Your task to perform on an android device: Open calendar and show me the second week of next month Image 0: 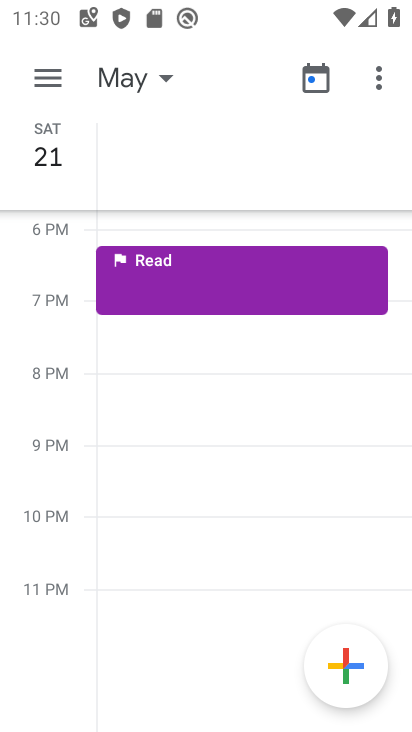
Step 0: click (150, 68)
Your task to perform on an android device: Open calendar and show me the second week of next month Image 1: 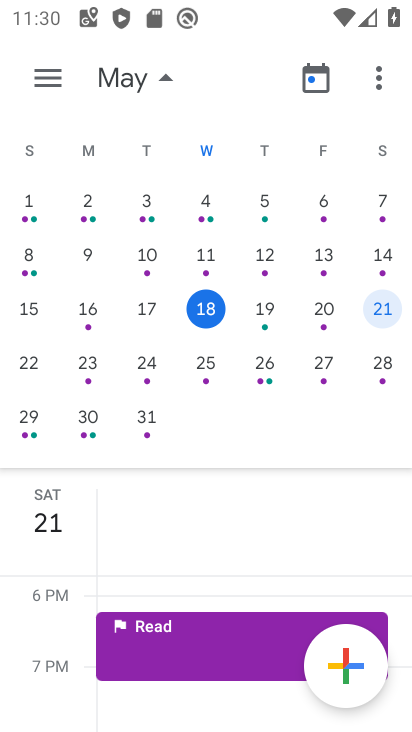
Step 1: drag from (390, 343) to (95, 336)
Your task to perform on an android device: Open calendar and show me the second week of next month Image 2: 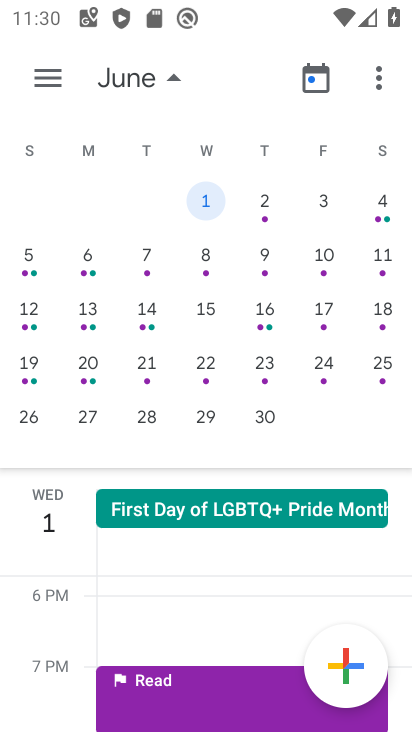
Step 2: click (54, 77)
Your task to perform on an android device: Open calendar and show me the second week of next month Image 3: 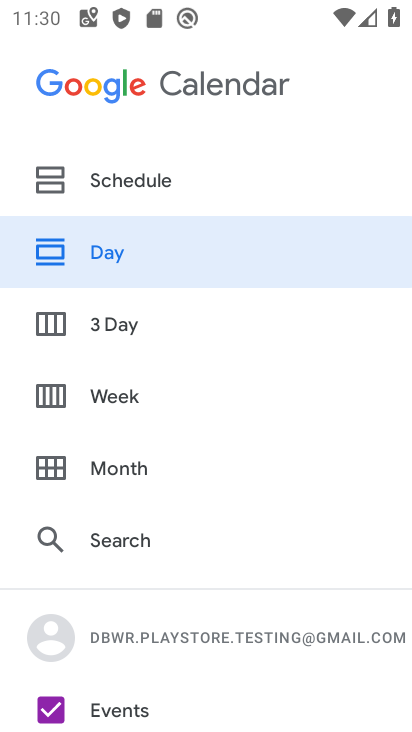
Step 3: click (148, 396)
Your task to perform on an android device: Open calendar and show me the second week of next month Image 4: 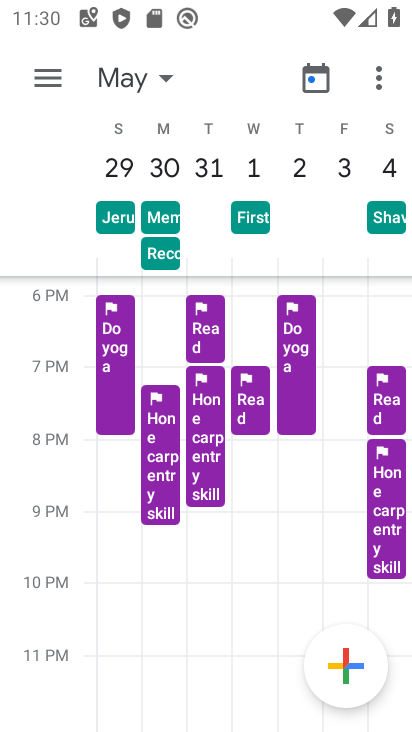
Step 4: task complete